Your task to perform on an android device: Go to sound settings Image 0: 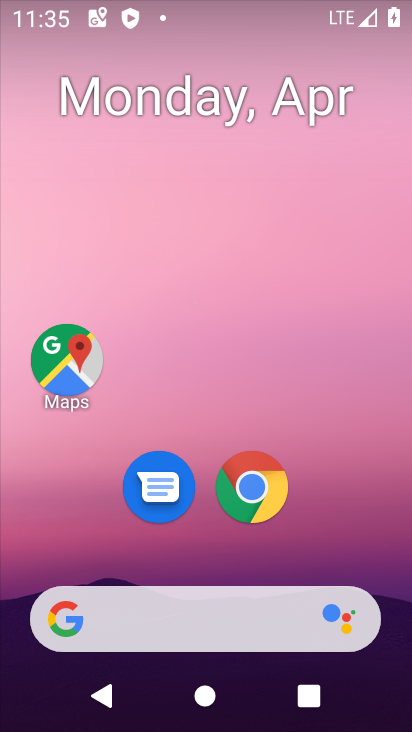
Step 0: drag from (366, 549) to (358, 118)
Your task to perform on an android device: Go to sound settings Image 1: 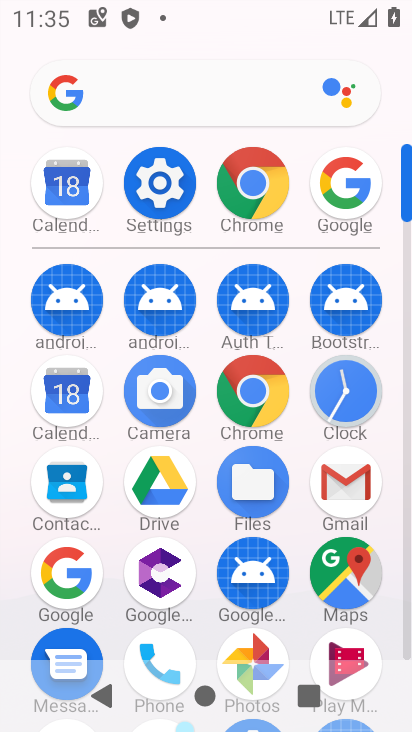
Step 1: click (155, 175)
Your task to perform on an android device: Go to sound settings Image 2: 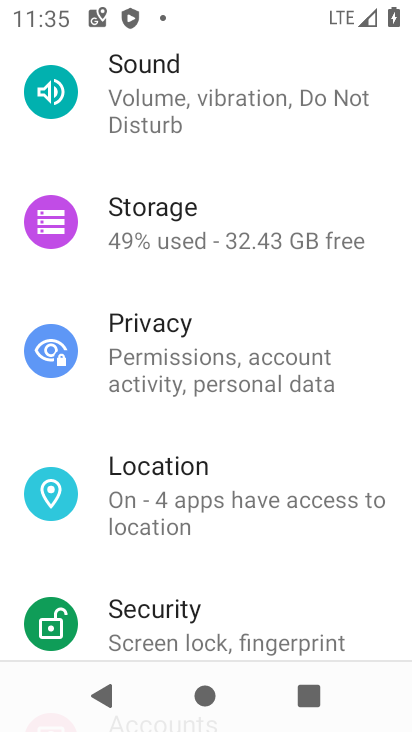
Step 2: click (244, 78)
Your task to perform on an android device: Go to sound settings Image 3: 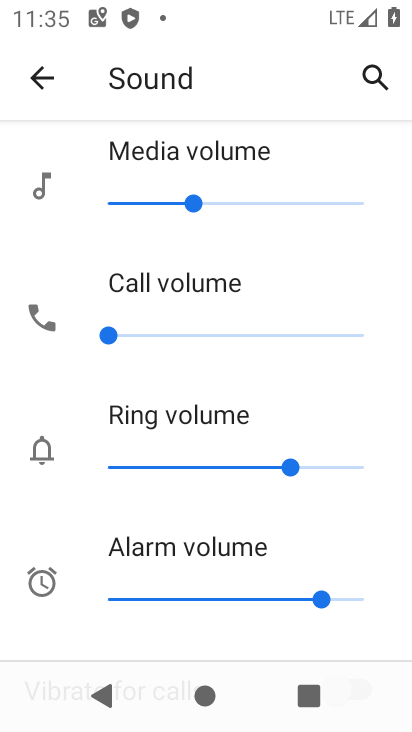
Step 3: task complete